Your task to perform on an android device: turn on location history Image 0: 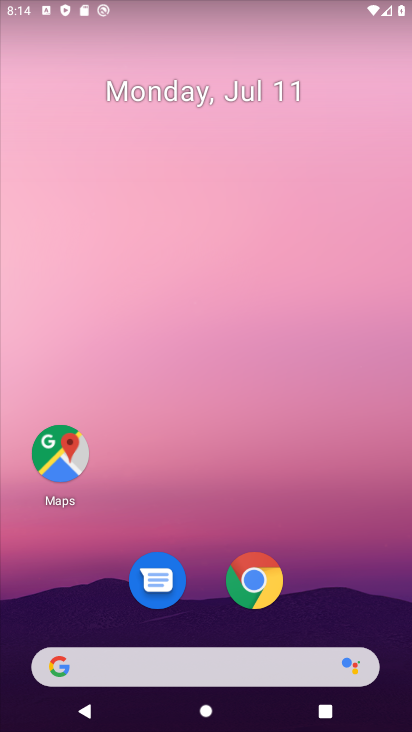
Step 0: drag from (387, 670) to (244, 78)
Your task to perform on an android device: turn on location history Image 1: 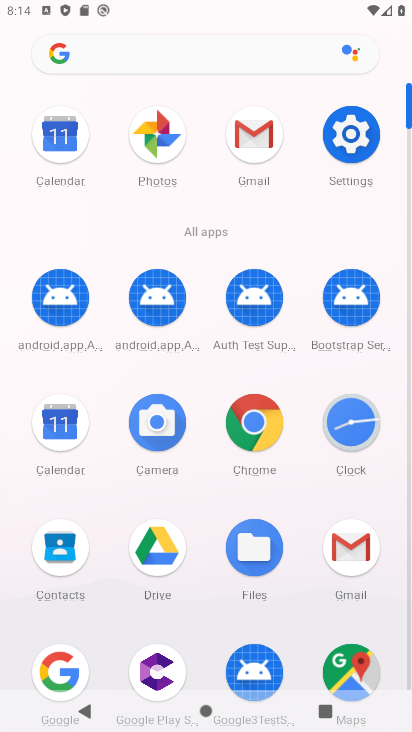
Step 1: click (351, 155)
Your task to perform on an android device: turn on location history Image 2: 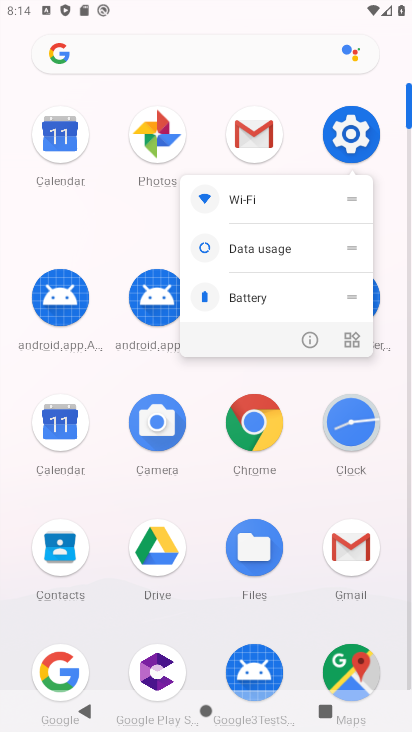
Step 2: click (350, 154)
Your task to perform on an android device: turn on location history Image 3: 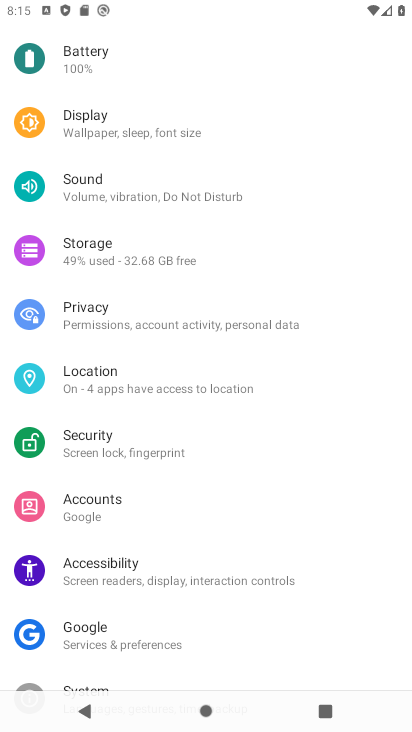
Step 3: click (92, 378)
Your task to perform on an android device: turn on location history Image 4: 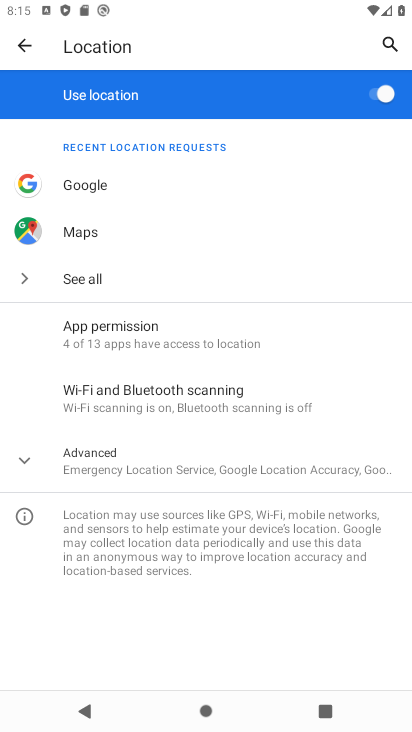
Step 4: click (75, 480)
Your task to perform on an android device: turn on location history Image 5: 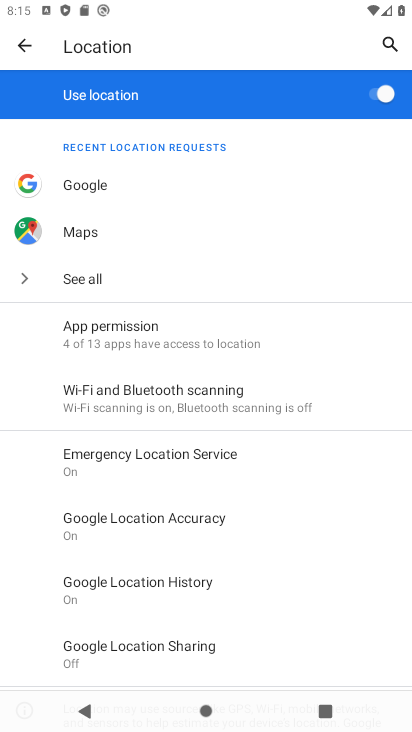
Step 5: click (153, 595)
Your task to perform on an android device: turn on location history Image 6: 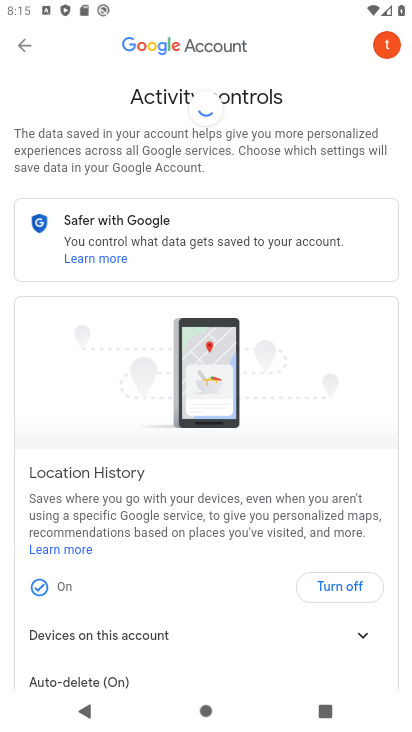
Step 6: click (349, 589)
Your task to perform on an android device: turn on location history Image 7: 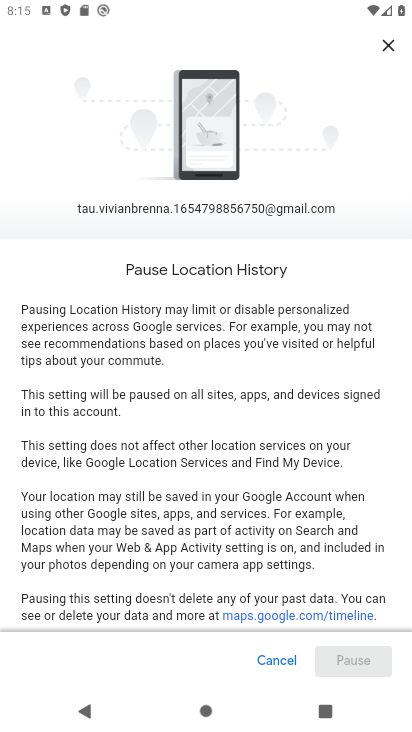
Step 7: task complete